Your task to perform on an android device: Go to Reddit.com Image 0: 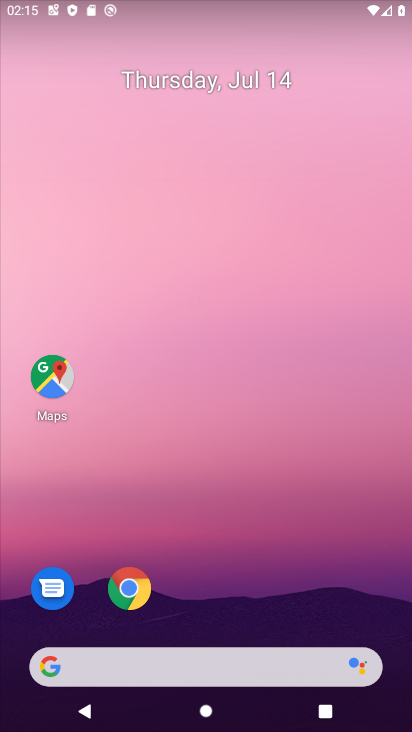
Step 0: click (190, 680)
Your task to perform on an android device: Go to Reddit.com Image 1: 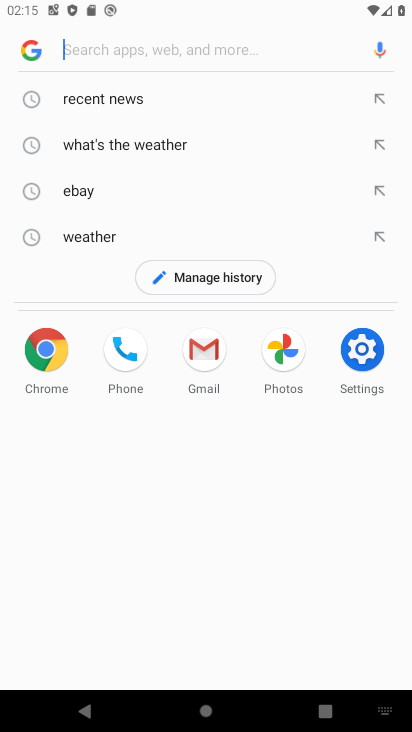
Step 1: type "reddit.com"
Your task to perform on an android device: Go to Reddit.com Image 2: 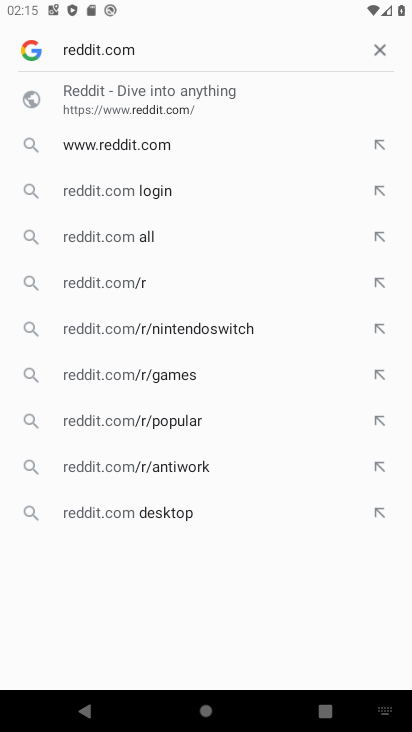
Step 2: click (113, 111)
Your task to perform on an android device: Go to Reddit.com Image 3: 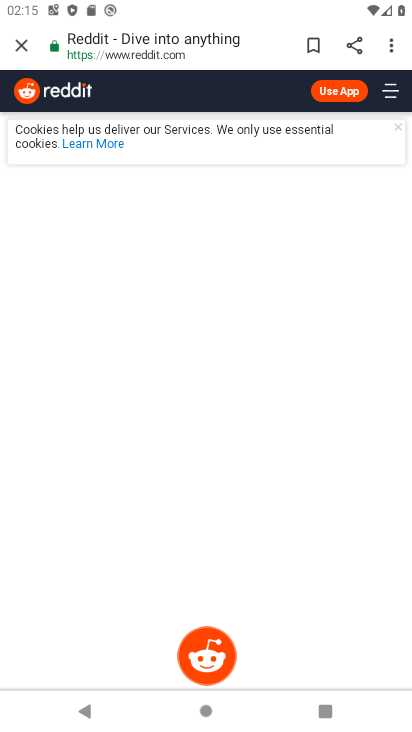
Step 3: task complete